Your task to perform on an android device: toggle show notifications on the lock screen Image 0: 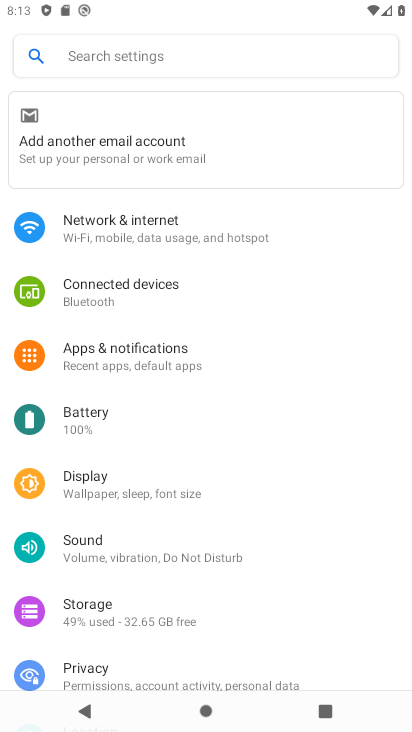
Step 0: click (137, 366)
Your task to perform on an android device: toggle show notifications on the lock screen Image 1: 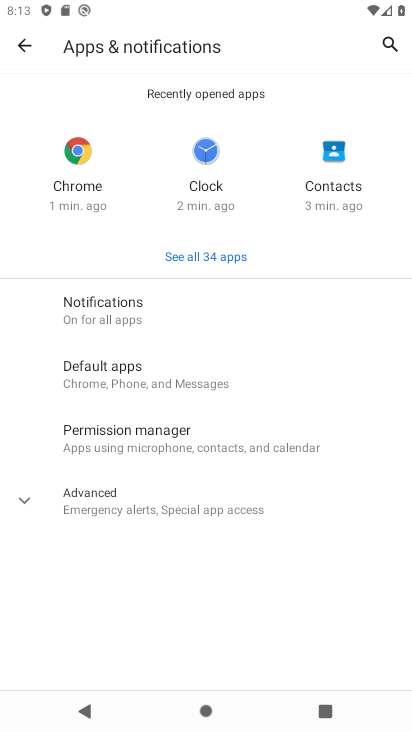
Step 1: click (100, 321)
Your task to perform on an android device: toggle show notifications on the lock screen Image 2: 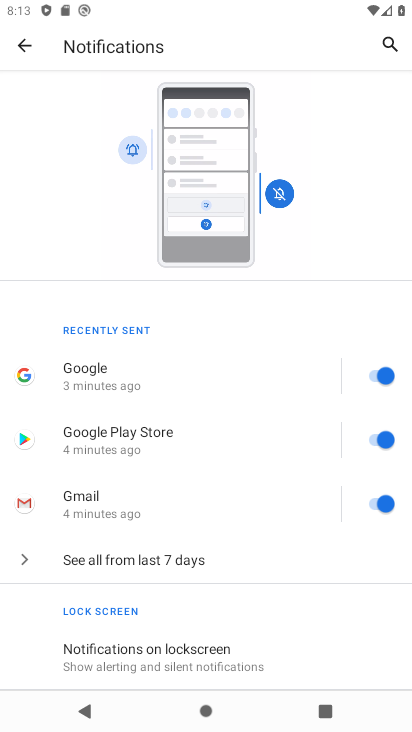
Step 2: drag from (246, 622) to (277, 298)
Your task to perform on an android device: toggle show notifications on the lock screen Image 3: 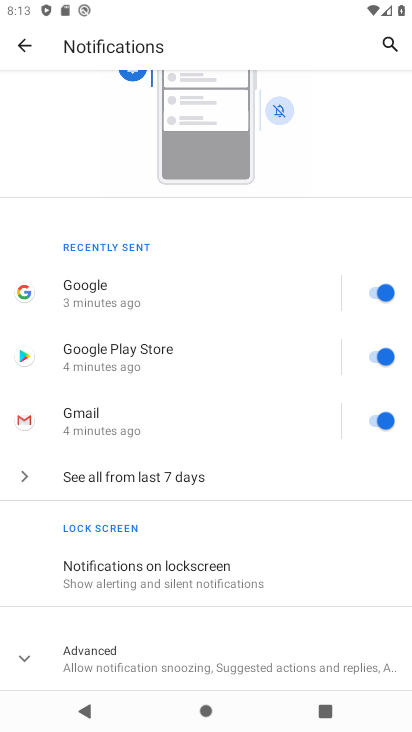
Step 3: click (155, 578)
Your task to perform on an android device: toggle show notifications on the lock screen Image 4: 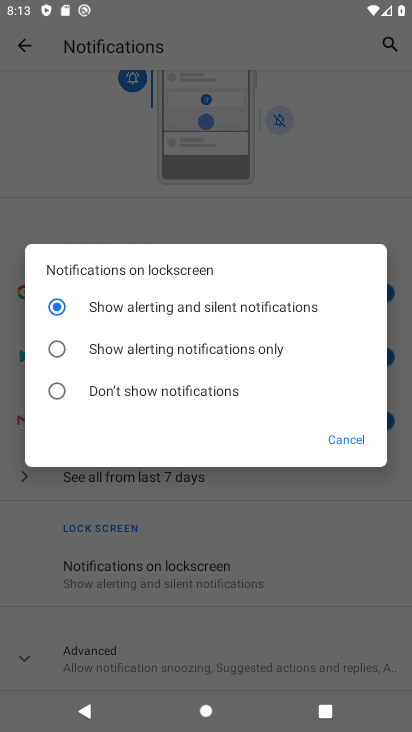
Step 4: click (50, 353)
Your task to perform on an android device: toggle show notifications on the lock screen Image 5: 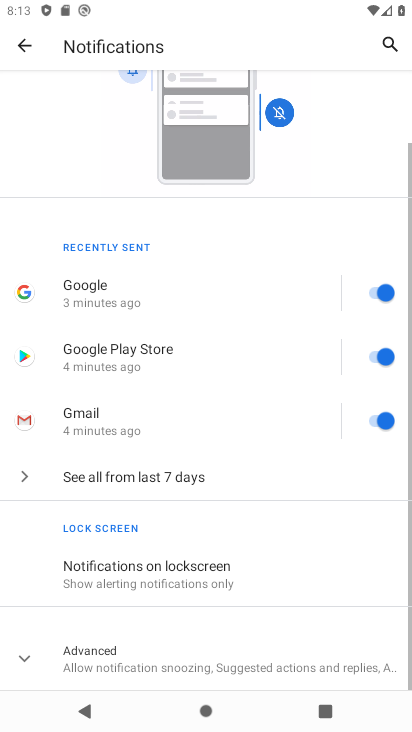
Step 5: task complete